Your task to perform on an android device: Open the stopwatch Image 0: 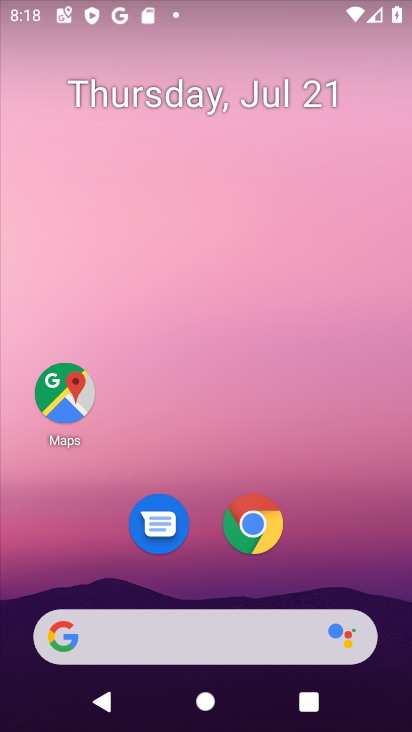
Step 0: drag from (171, 630) to (331, 111)
Your task to perform on an android device: Open the stopwatch Image 1: 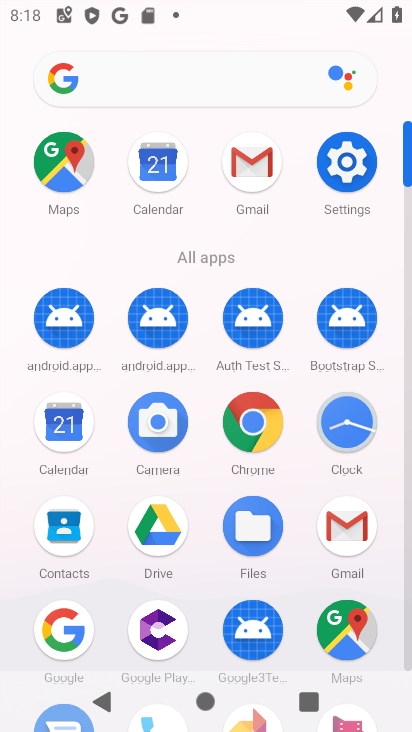
Step 1: click (354, 432)
Your task to perform on an android device: Open the stopwatch Image 2: 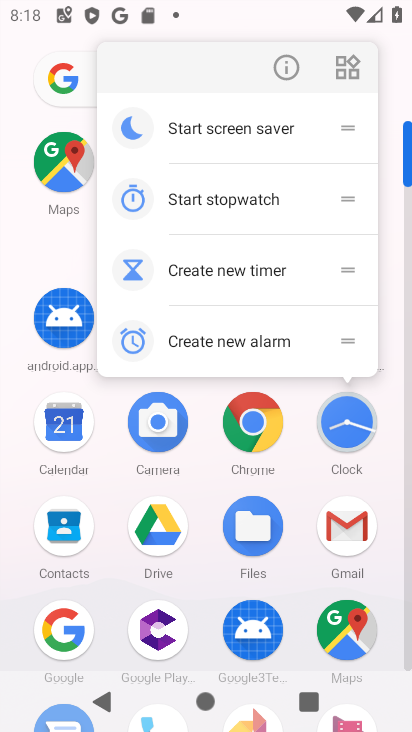
Step 2: click (346, 424)
Your task to perform on an android device: Open the stopwatch Image 3: 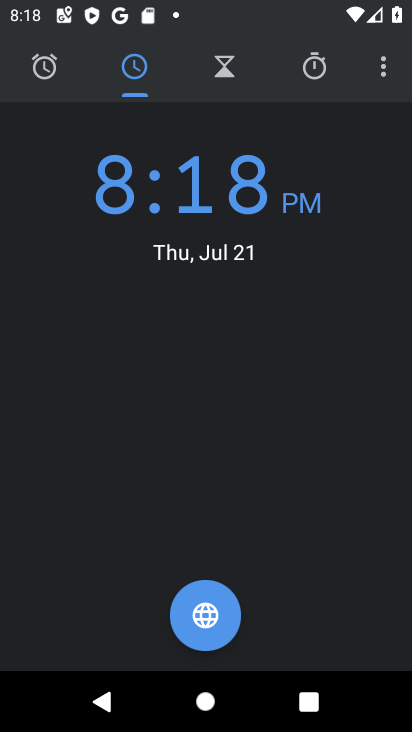
Step 3: click (317, 63)
Your task to perform on an android device: Open the stopwatch Image 4: 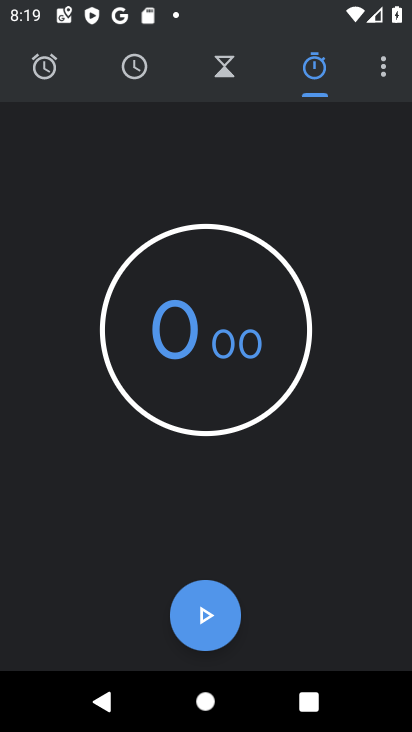
Step 4: task complete